Your task to perform on an android device: Set the phone to "Do not disturb". Image 0: 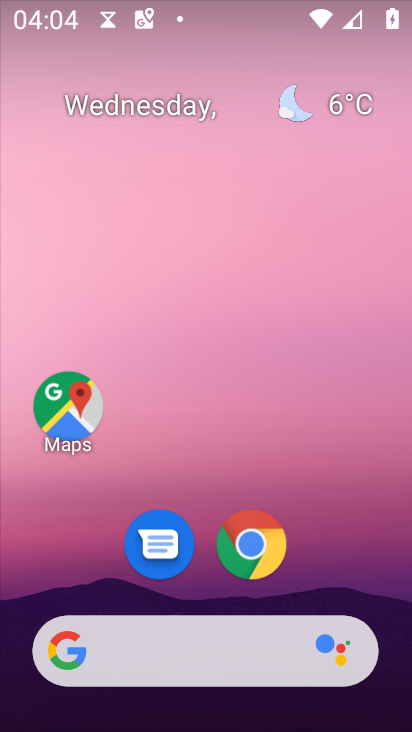
Step 0: drag from (222, 583) to (314, 202)
Your task to perform on an android device: Set the phone to "Do not disturb". Image 1: 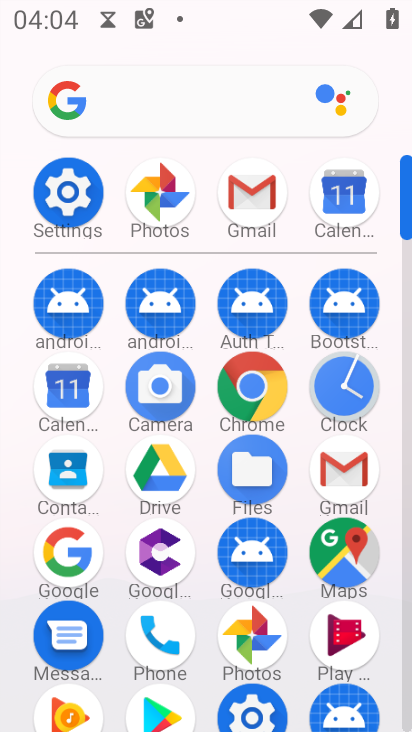
Step 1: click (70, 203)
Your task to perform on an android device: Set the phone to "Do not disturb". Image 2: 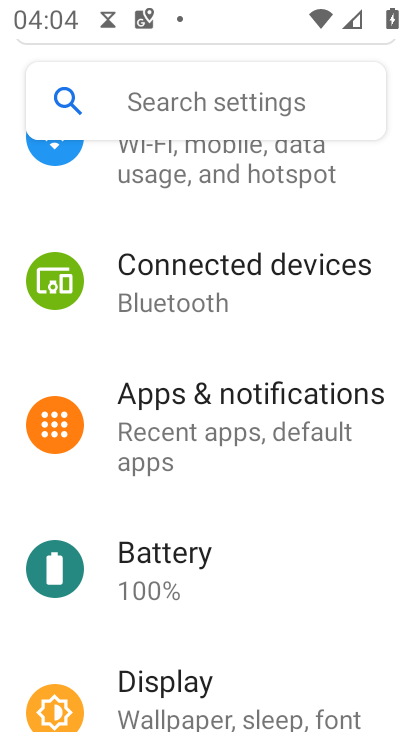
Step 2: drag from (263, 643) to (265, 431)
Your task to perform on an android device: Set the phone to "Do not disturb". Image 3: 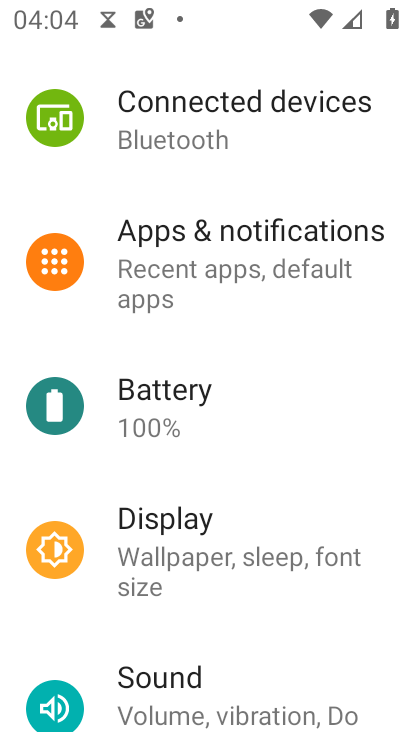
Step 3: drag from (283, 648) to (312, 385)
Your task to perform on an android device: Set the phone to "Do not disturb". Image 4: 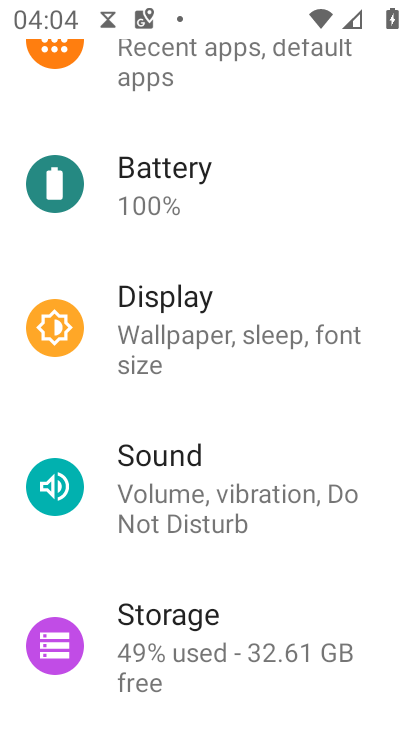
Step 4: drag from (300, 618) to (298, 312)
Your task to perform on an android device: Set the phone to "Do not disturb". Image 5: 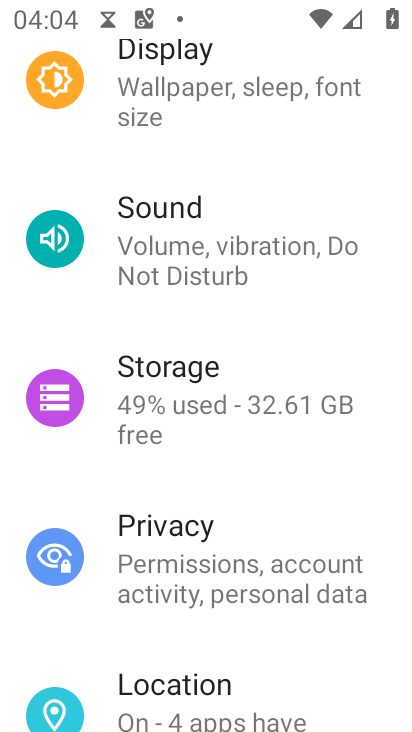
Step 5: click (285, 269)
Your task to perform on an android device: Set the phone to "Do not disturb". Image 6: 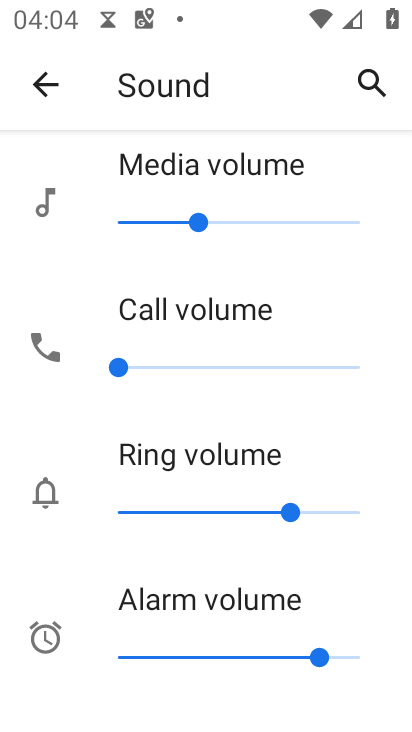
Step 6: drag from (233, 696) to (228, 311)
Your task to perform on an android device: Set the phone to "Do not disturb". Image 7: 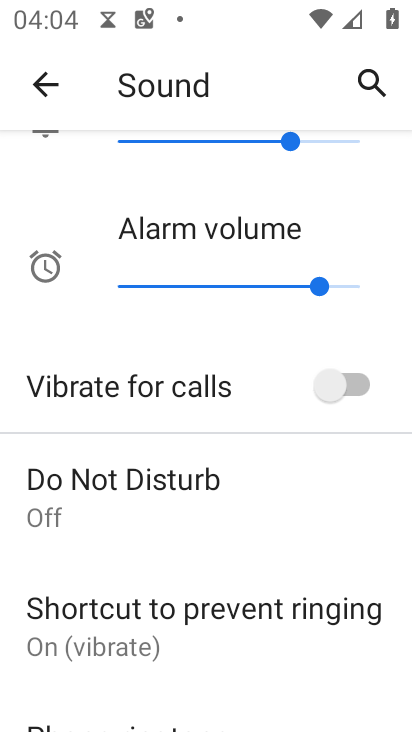
Step 7: click (153, 499)
Your task to perform on an android device: Set the phone to "Do not disturb". Image 8: 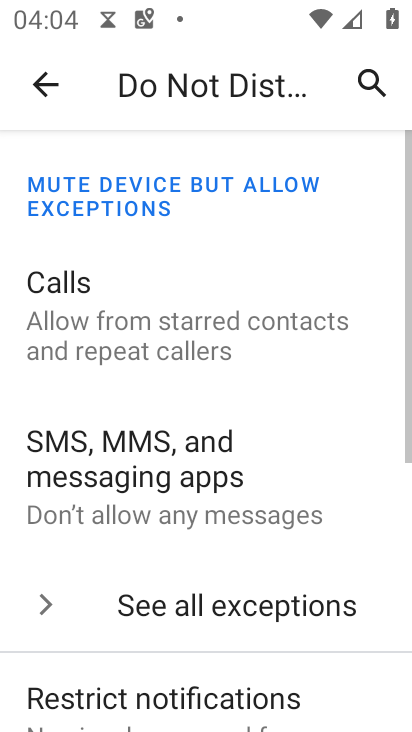
Step 8: drag from (146, 639) to (230, 198)
Your task to perform on an android device: Set the phone to "Do not disturb". Image 9: 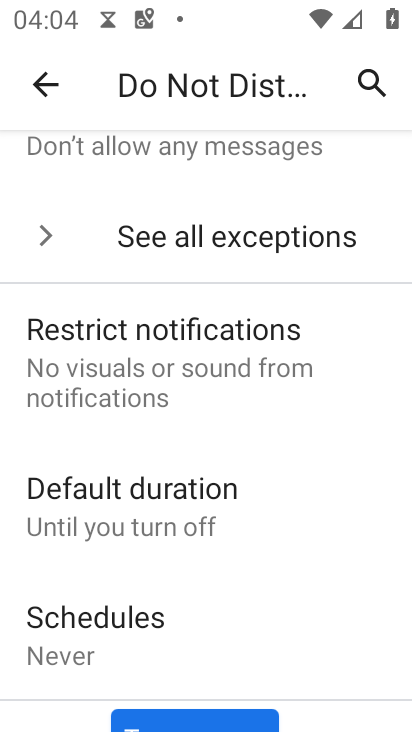
Step 9: click (140, 708)
Your task to perform on an android device: Set the phone to "Do not disturb". Image 10: 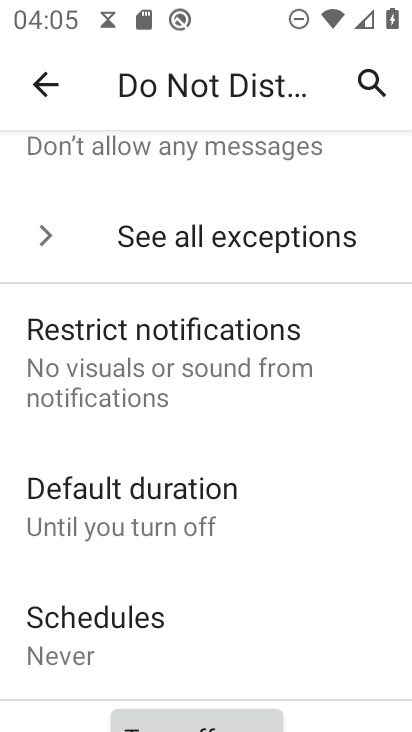
Step 10: task complete